Your task to perform on an android device: open app "Paramount+ | Peak Streaming" (install if not already installed) and go to login screen Image 0: 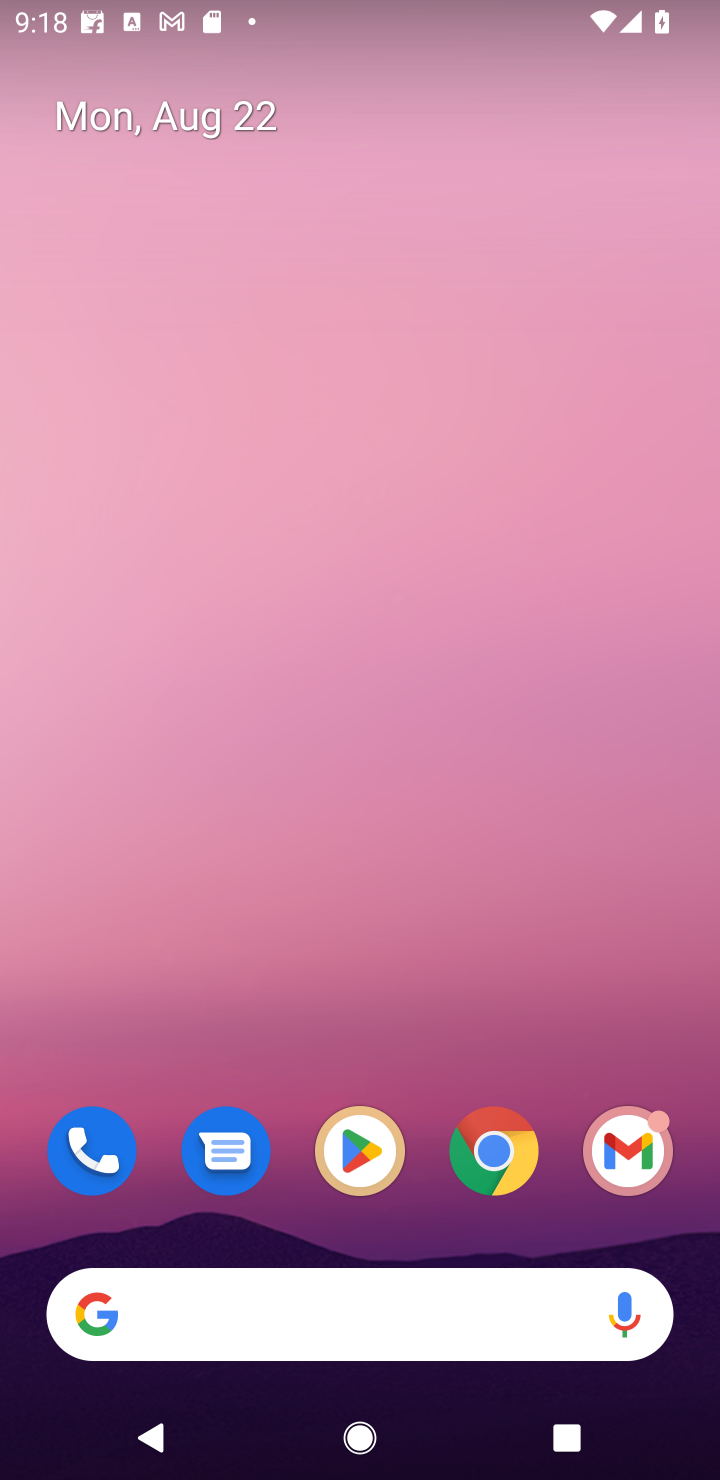
Step 0: press home button
Your task to perform on an android device: open app "Paramount+ | Peak Streaming" (install if not already installed) and go to login screen Image 1: 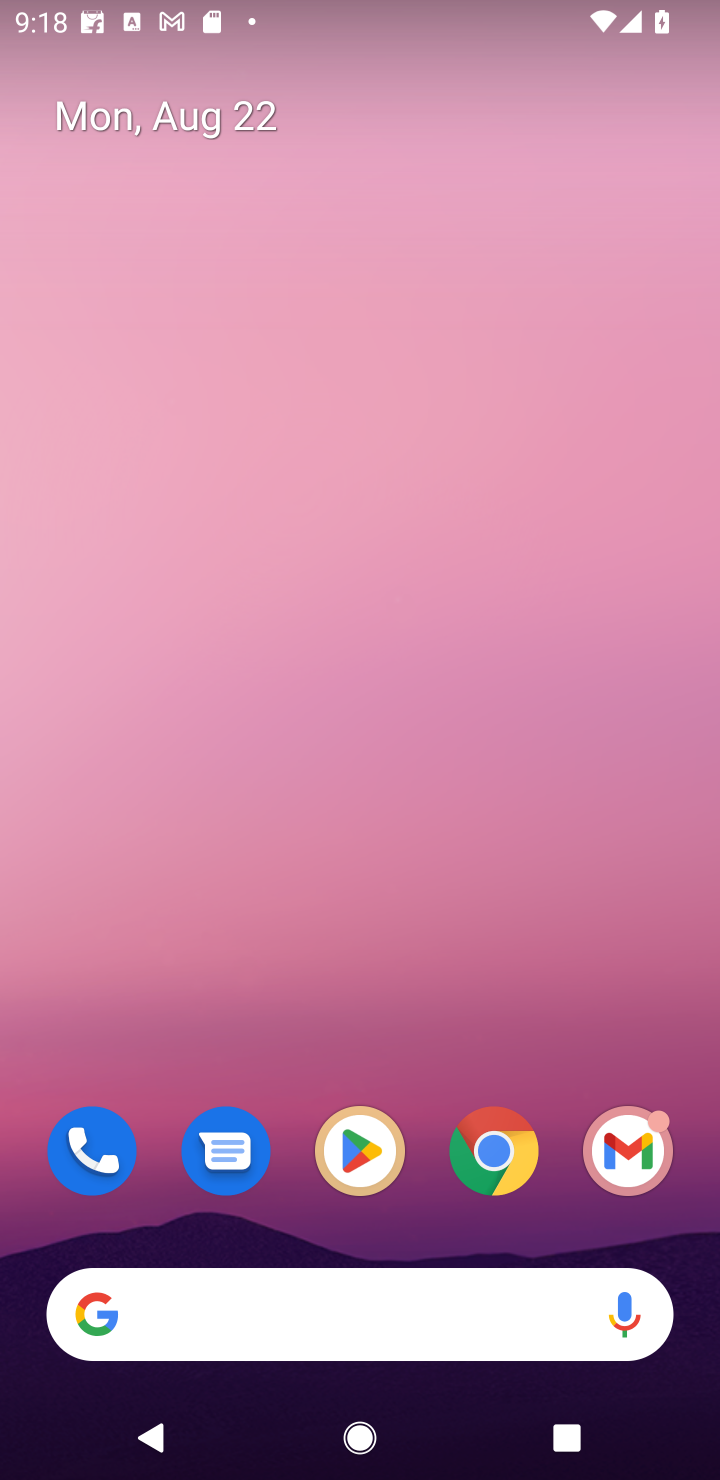
Step 1: click (377, 1139)
Your task to perform on an android device: open app "Paramount+ | Peak Streaming" (install if not already installed) and go to login screen Image 2: 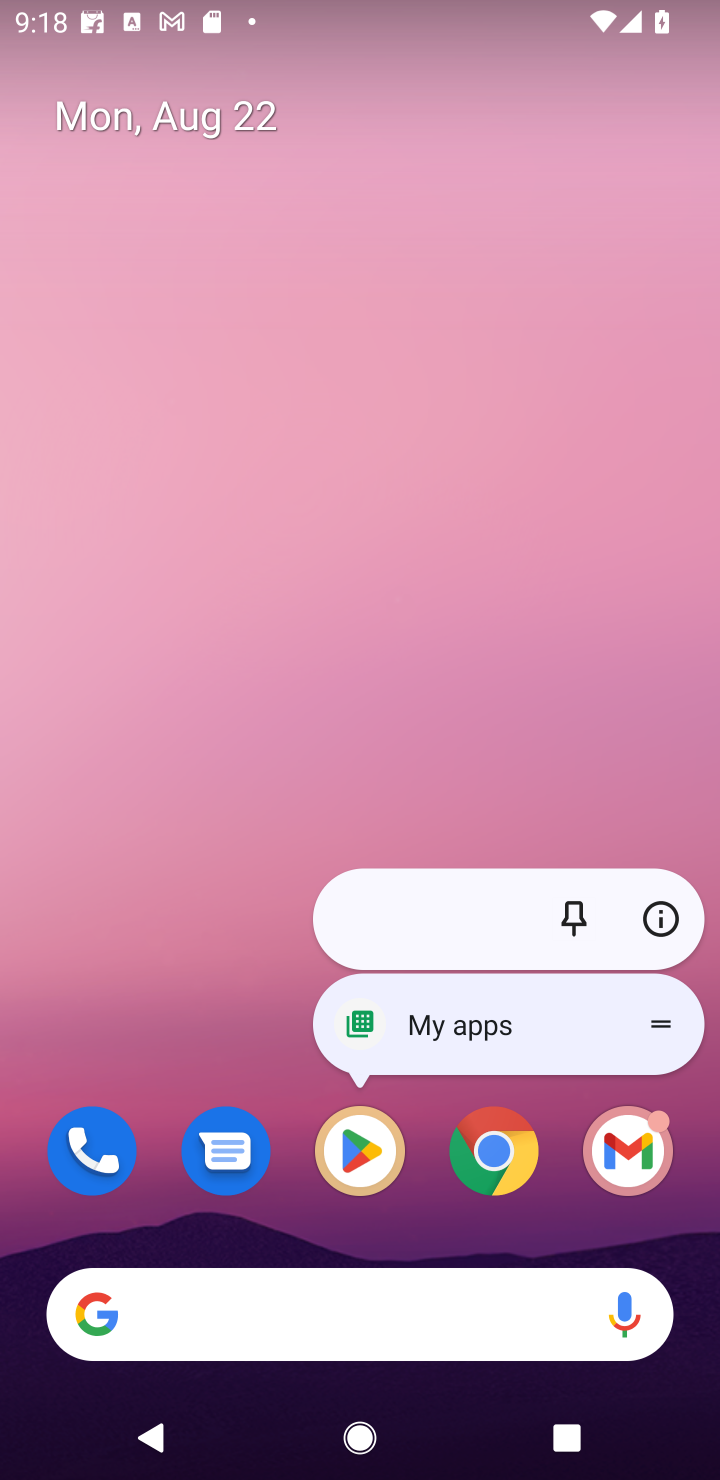
Step 2: click (377, 1152)
Your task to perform on an android device: open app "Paramount+ | Peak Streaming" (install if not already installed) and go to login screen Image 3: 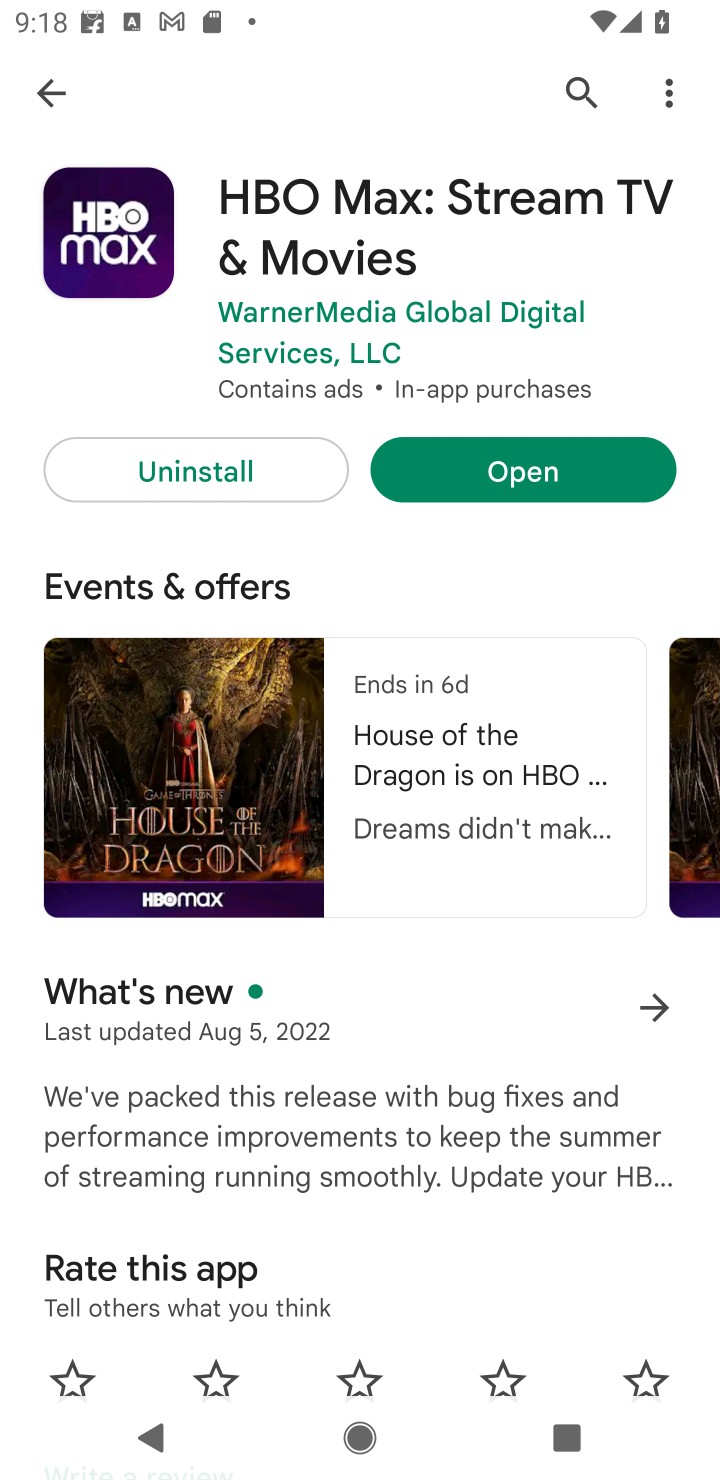
Step 3: click (576, 84)
Your task to perform on an android device: open app "Paramount+ | Peak Streaming" (install if not already installed) and go to login screen Image 4: 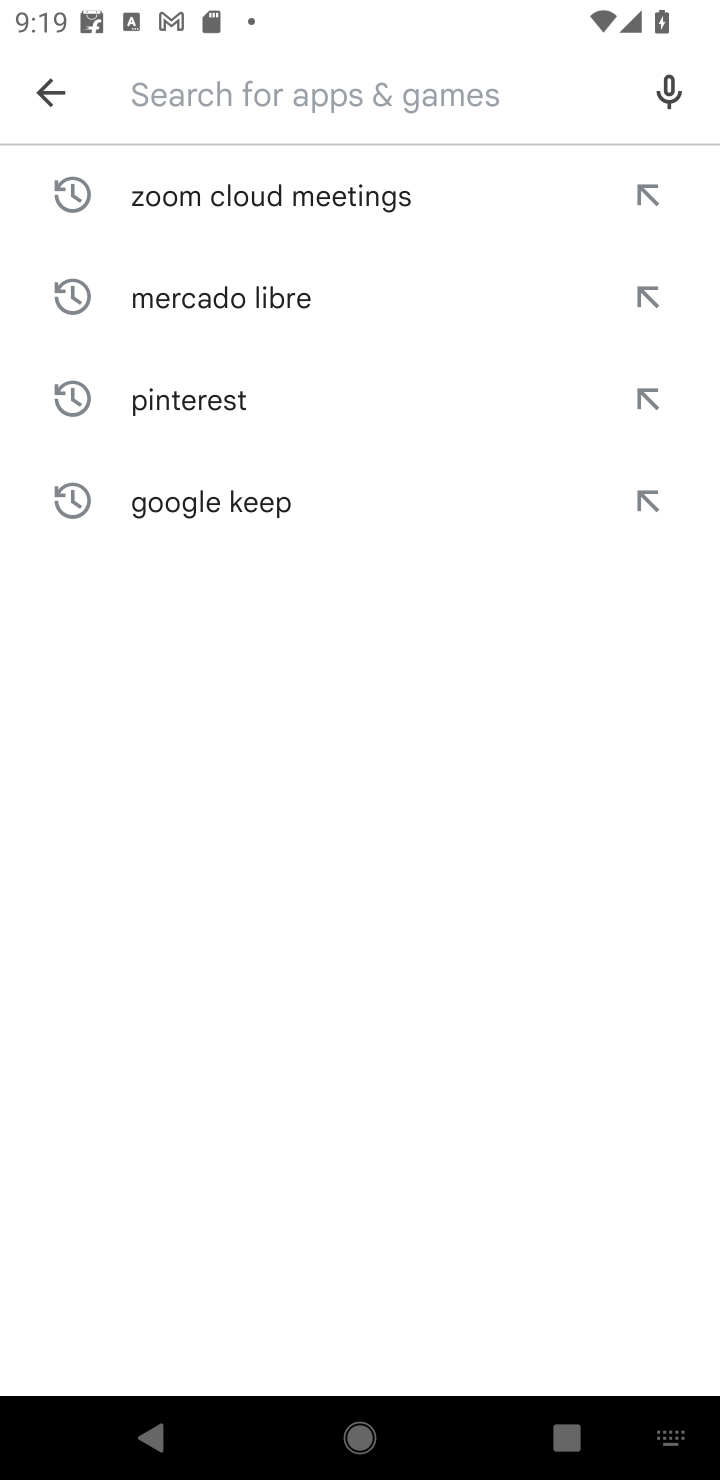
Step 4: type "Paramount+ | Peak Streaming"
Your task to perform on an android device: open app "Paramount+ | Peak Streaming" (install if not already installed) and go to login screen Image 5: 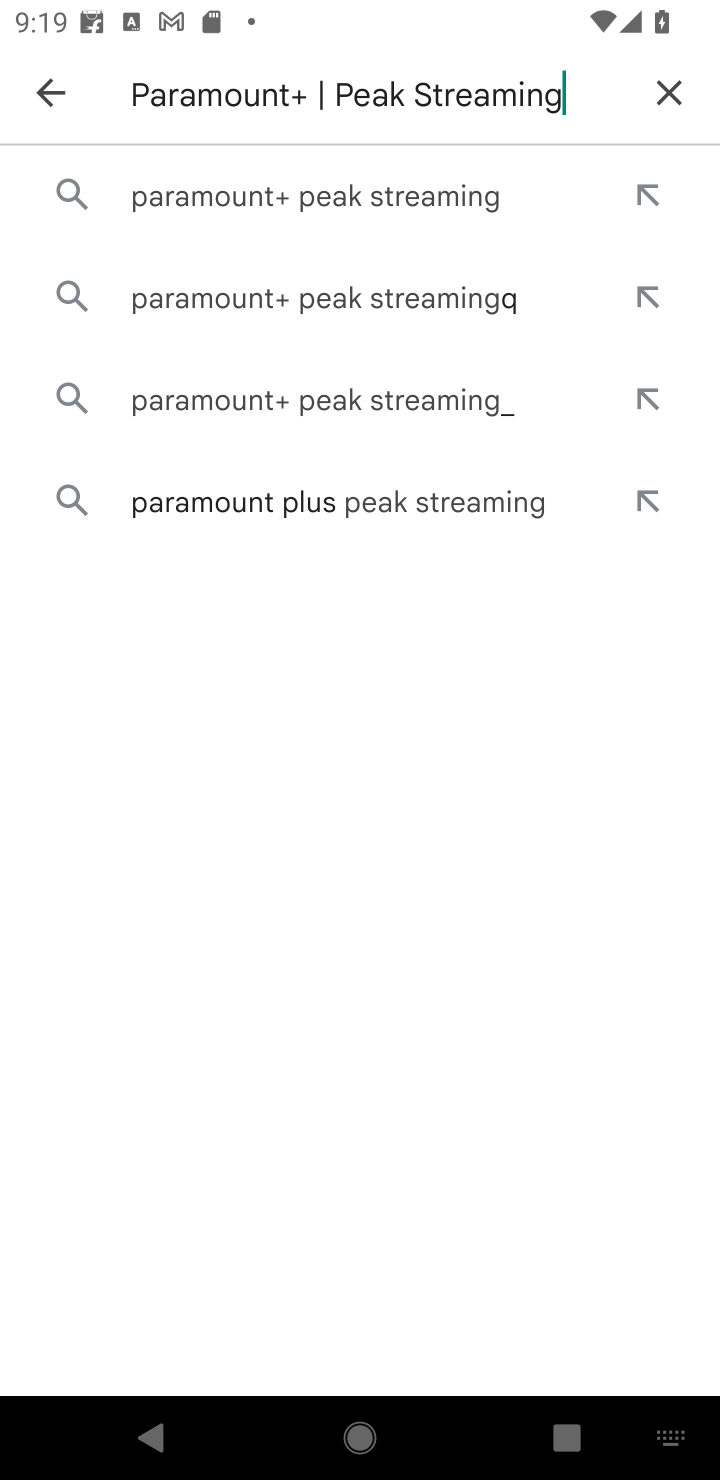
Step 5: click (467, 190)
Your task to perform on an android device: open app "Paramount+ | Peak Streaming" (install if not already installed) and go to login screen Image 6: 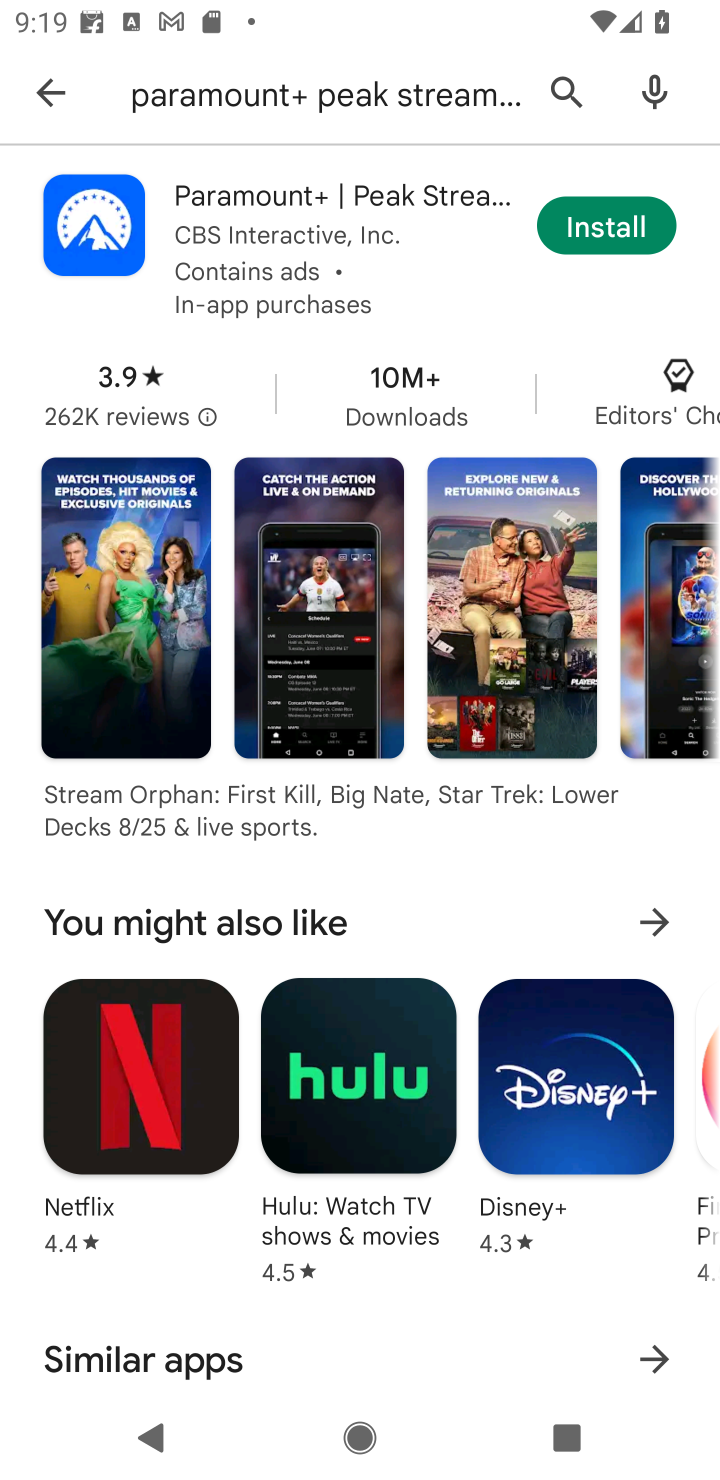
Step 6: click (573, 223)
Your task to perform on an android device: open app "Paramount+ | Peak Streaming" (install if not already installed) and go to login screen Image 7: 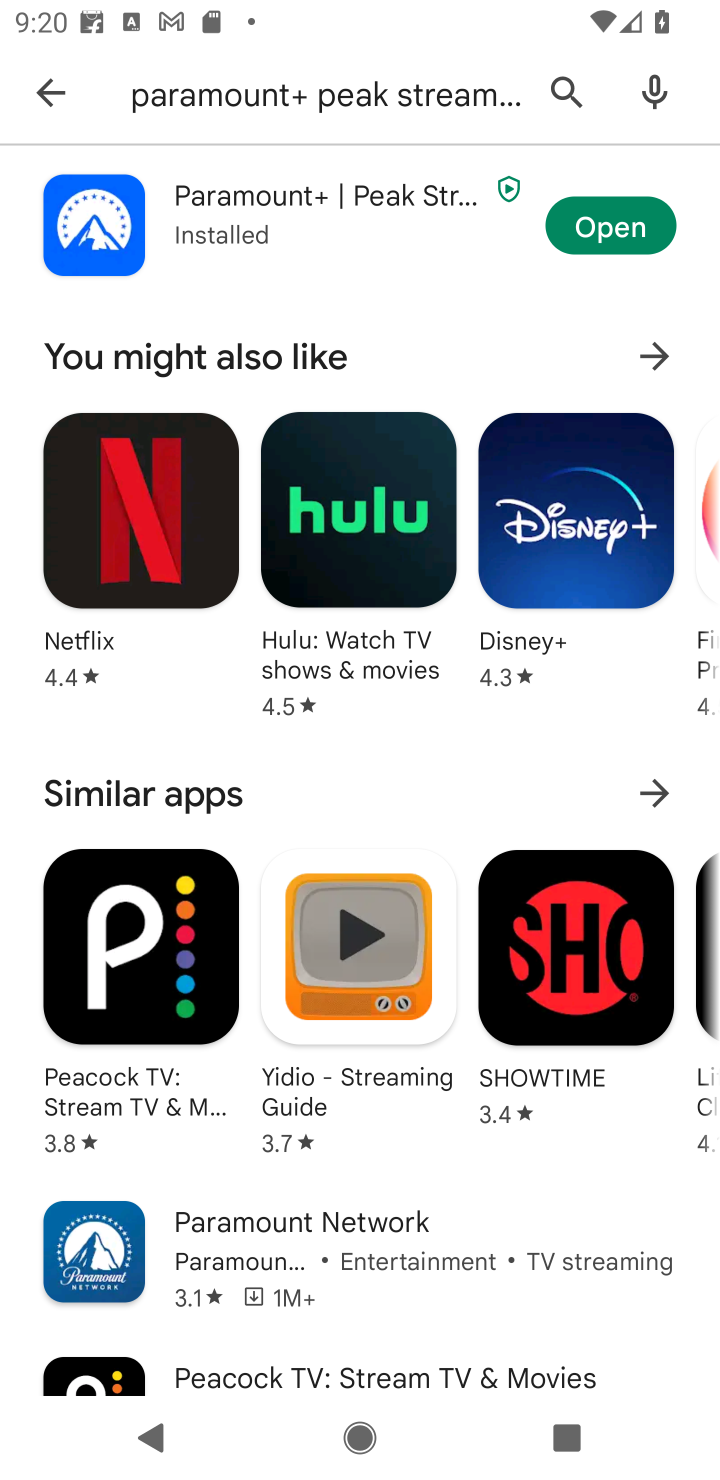
Step 7: click (625, 221)
Your task to perform on an android device: open app "Paramount+ | Peak Streaming" (install if not already installed) and go to login screen Image 8: 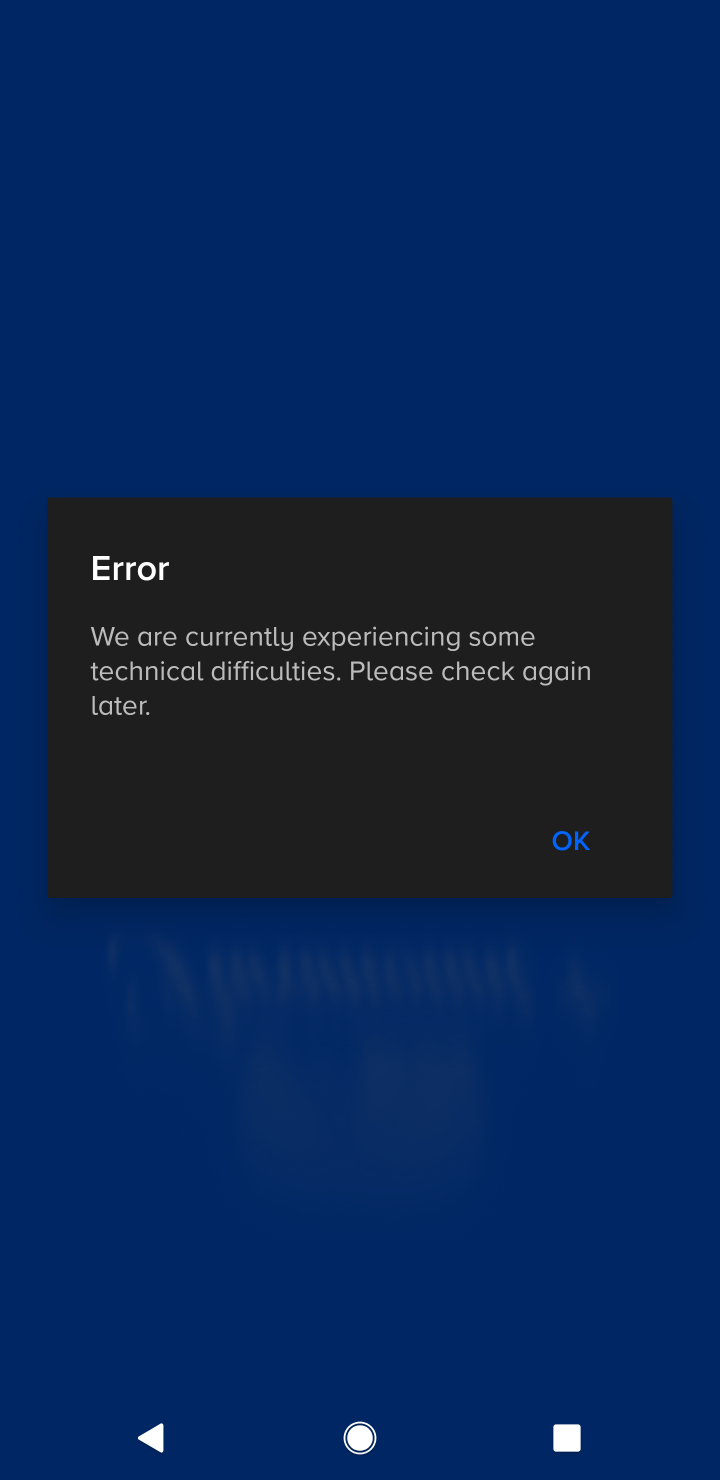
Step 8: task complete